Your task to perform on an android device: see tabs open on other devices in the chrome app Image 0: 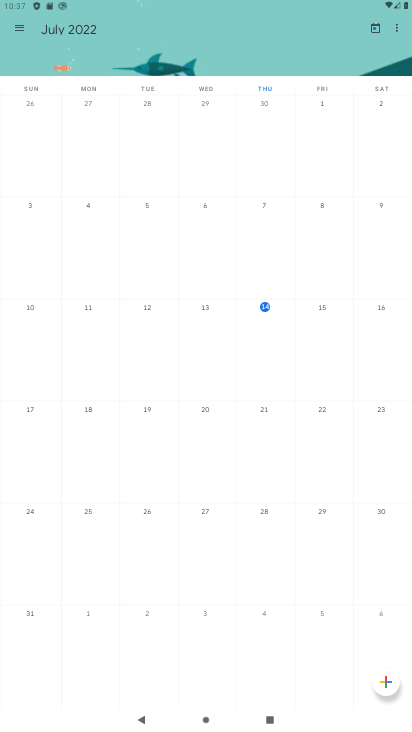
Step 0: press home button
Your task to perform on an android device: see tabs open on other devices in the chrome app Image 1: 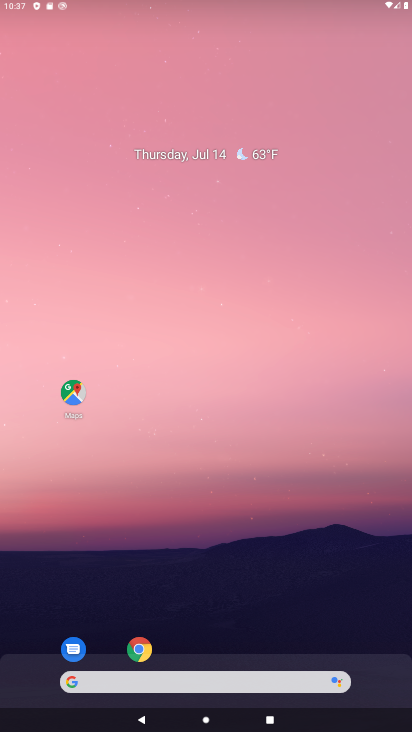
Step 1: drag from (279, 627) to (258, 5)
Your task to perform on an android device: see tabs open on other devices in the chrome app Image 2: 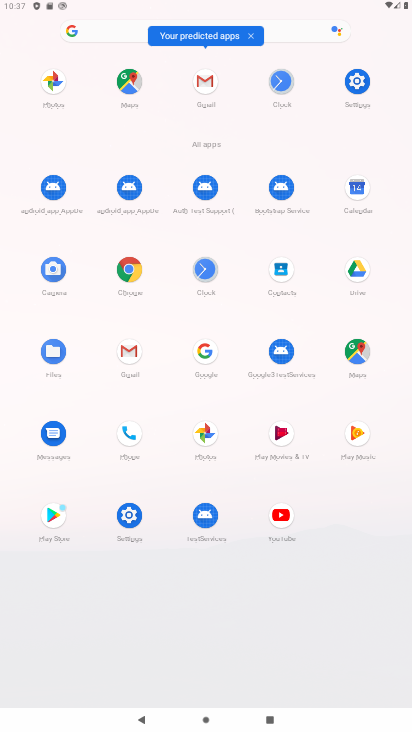
Step 2: click (123, 264)
Your task to perform on an android device: see tabs open on other devices in the chrome app Image 3: 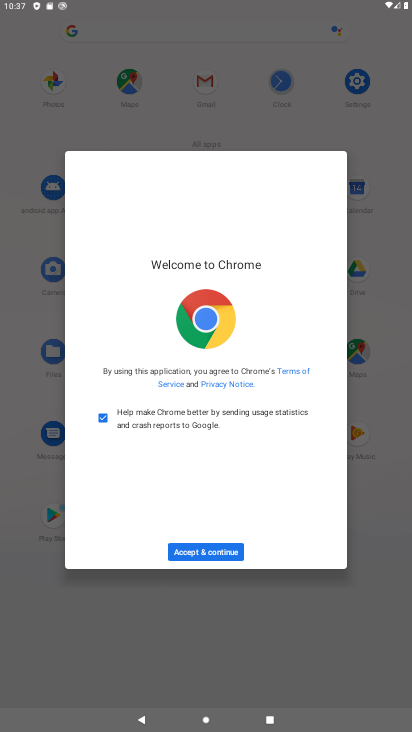
Step 3: click (186, 548)
Your task to perform on an android device: see tabs open on other devices in the chrome app Image 4: 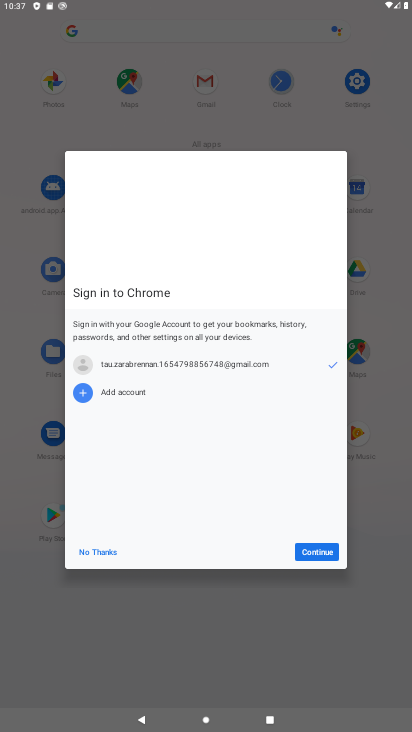
Step 4: click (106, 550)
Your task to perform on an android device: see tabs open on other devices in the chrome app Image 5: 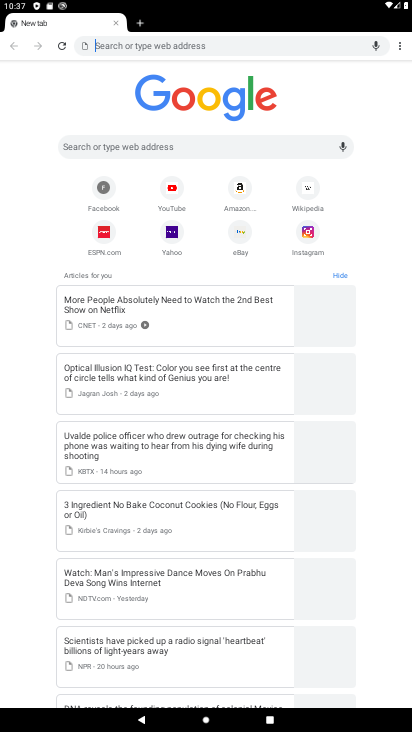
Step 5: drag from (397, 44) to (323, 126)
Your task to perform on an android device: see tabs open on other devices in the chrome app Image 6: 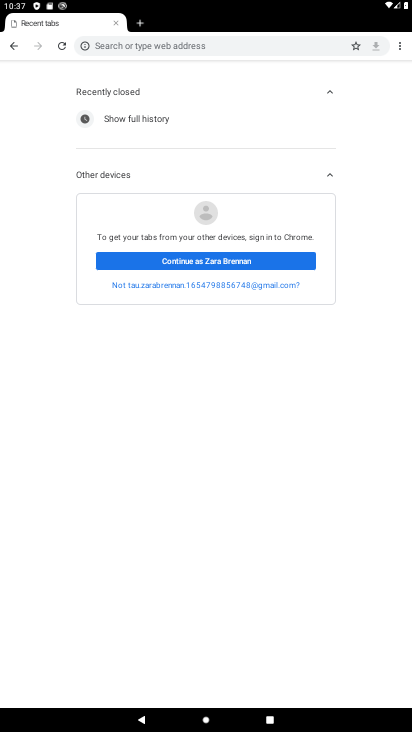
Step 6: click (192, 254)
Your task to perform on an android device: see tabs open on other devices in the chrome app Image 7: 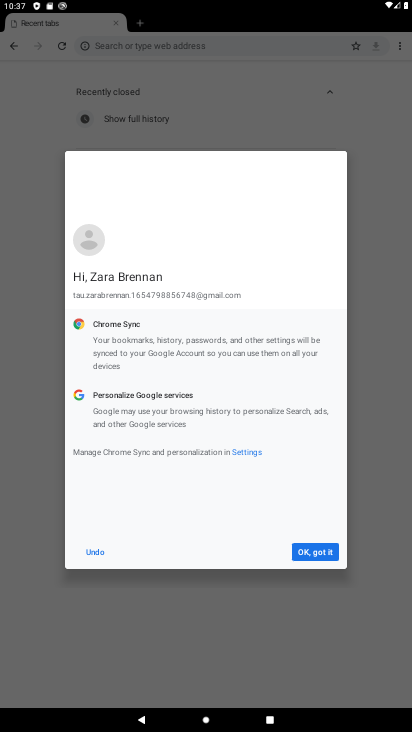
Step 7: click (328, 558)
Your task to perform on an android device: see tabs open on other devices in the chrome app Image 8: 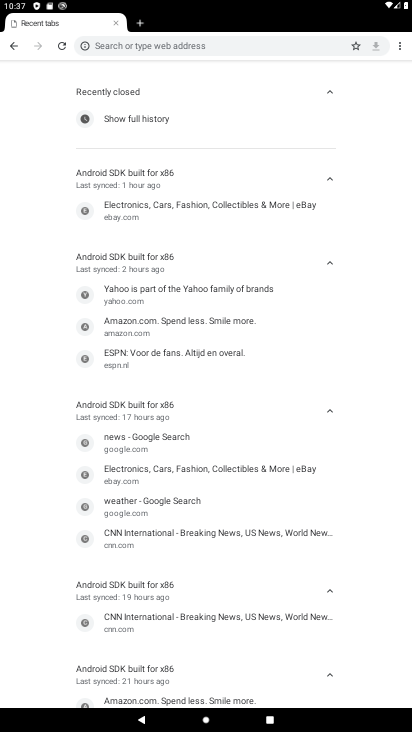
Step 8: task complete